Your task to perform on an android device: Open Youtube and go to "Your channel" Image 0: 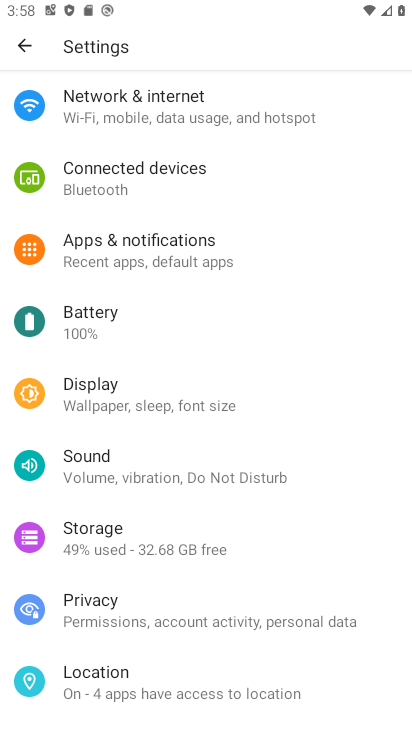
Step 0: press back button
Your task to perform on an android device: Open Youtube and go to "Your channel" Image 1: 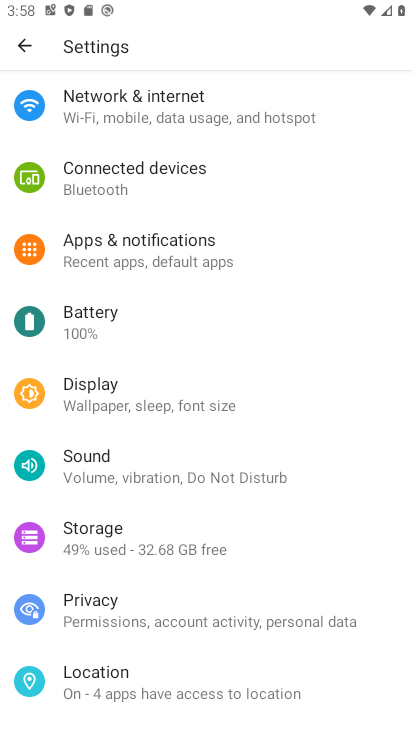
Step 1: press back button
Your task to perform on an android device: Open Youtube and go to "Your channel" Image 2: 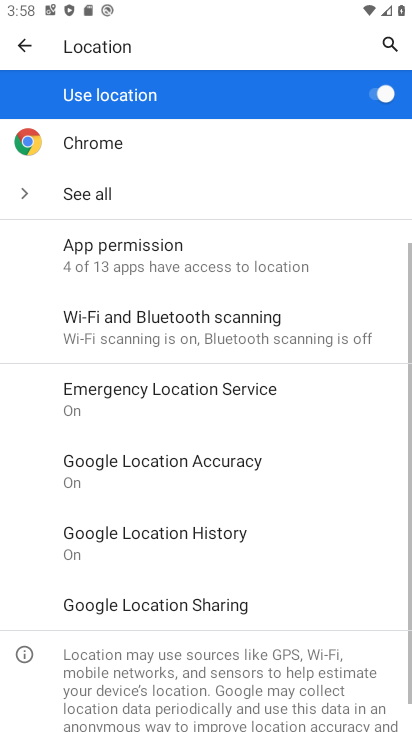
Step 2: press back button
Your task to perform on an android device: Open Youtube and go to "Your channel" Image 3: 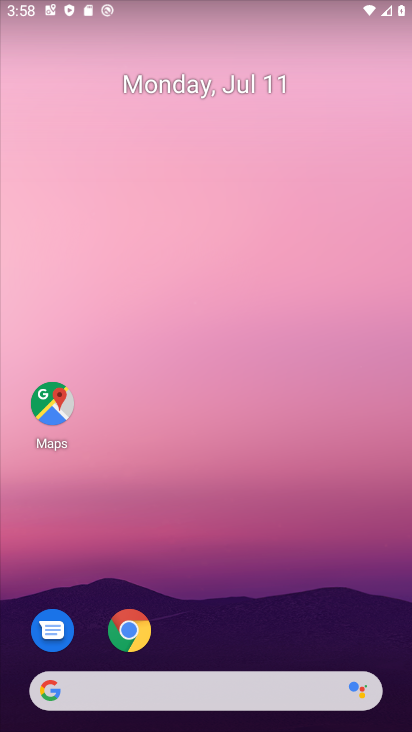
Step 3: drag from (269, 297) to (239, 3)
Your task to perform on an android device: Open Youtube and go to "Your channel" Image 4: 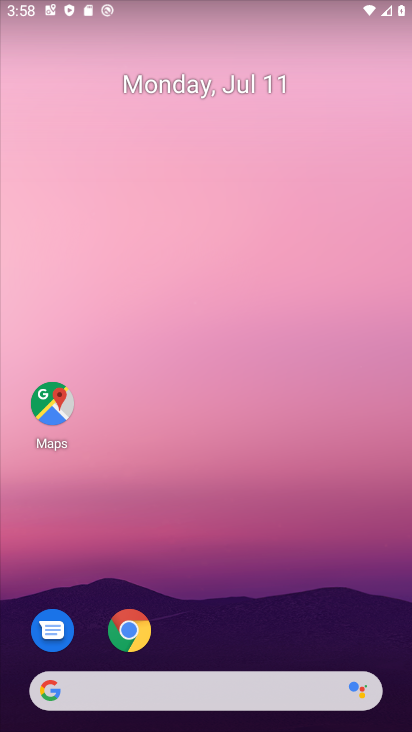
Step 4: drag from (221, 606) to (154, 67)
Your task to perform on an android device: Open Youtube and go to "Your channel" Image 5: 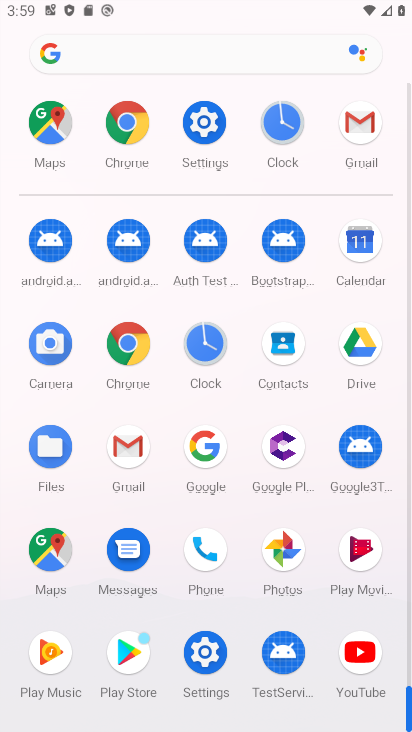
Step 5: click (357, 651)
Your task to perform on an android device: Open Youtube and go to "Your channel" Image 6: 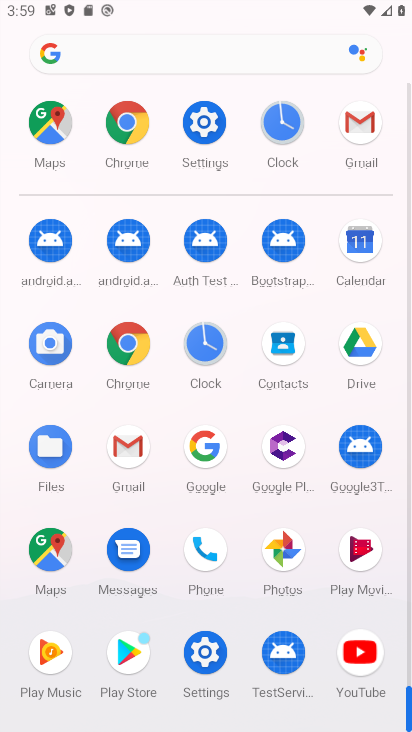
Step 6: click (358, 650)
Your task to perform on an android device: Open Youtube and go to "Your channel" Image 7: 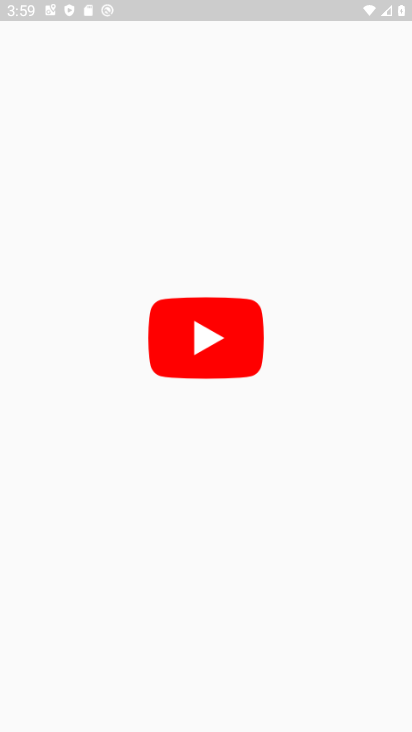
Step 7: click (359, 650)
Your task to perform on an android device: Open Youtube and go to "Your channel" Image 8: 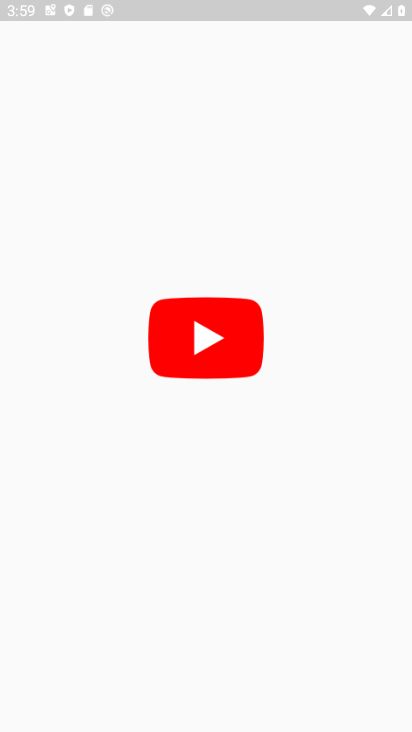
Step 8: click (197, 325)
Your task to perform on an android device: Open Youtube and go to "Your channel" Image 9: 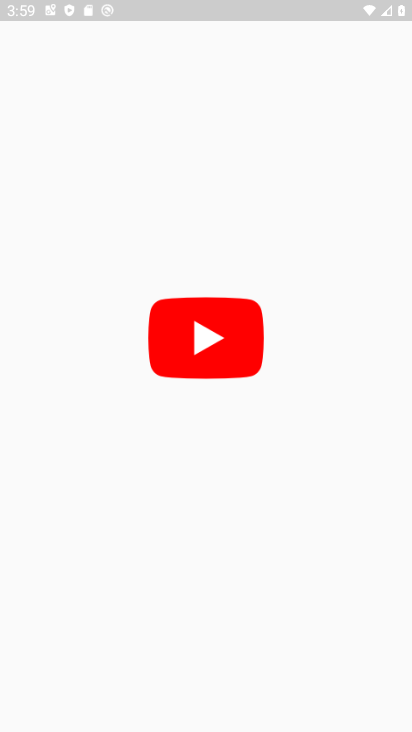
Step 9: click (197, 323)
Your task to perform on an android device: Open Youtube and go to "Your channel" Image 10: 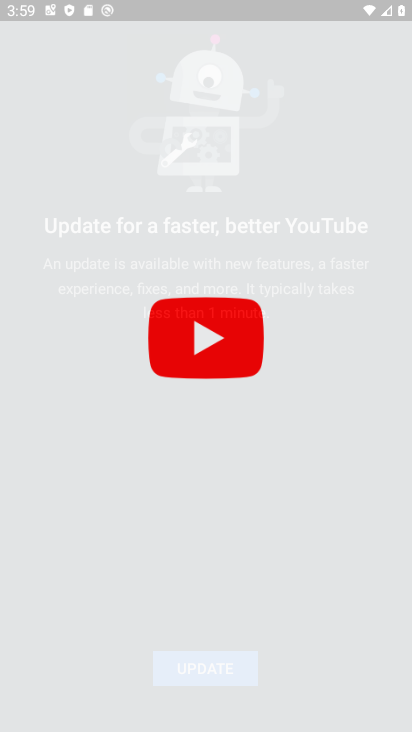
Step 10: click (197, 323)
Your task to perform on an android device: Open Youtube and go to "Your channel" Image 11: 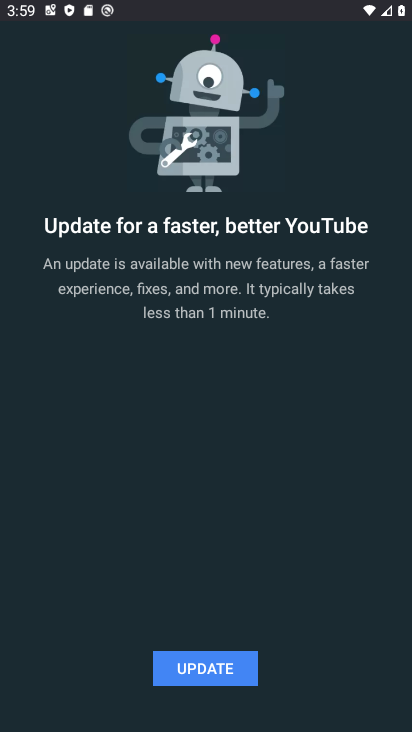
Step 11: click (197, 323)
Your task to perform on an android device: Open Youtube and go to "Your channel" Image 12: 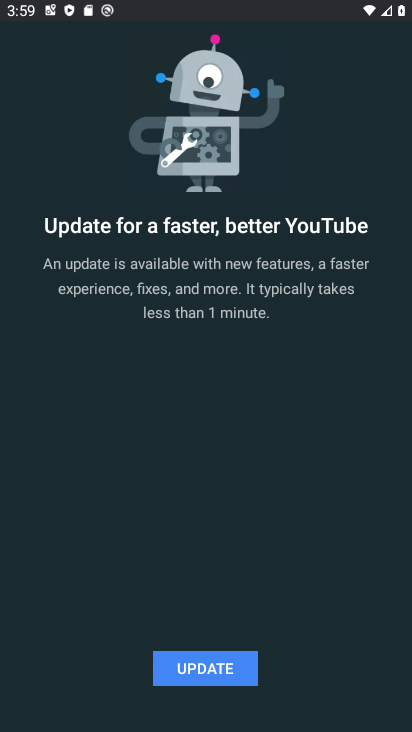
Step 12: click (197, 325)
Your task to perform on an android device: Open Youtube and go to "Your channel" Image 13: 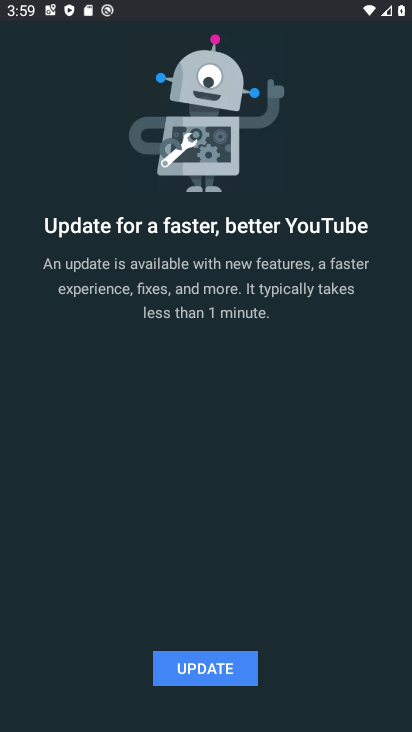
Step 13: task complete